Your task to perform on an android device: turn notification dots off Image 0: 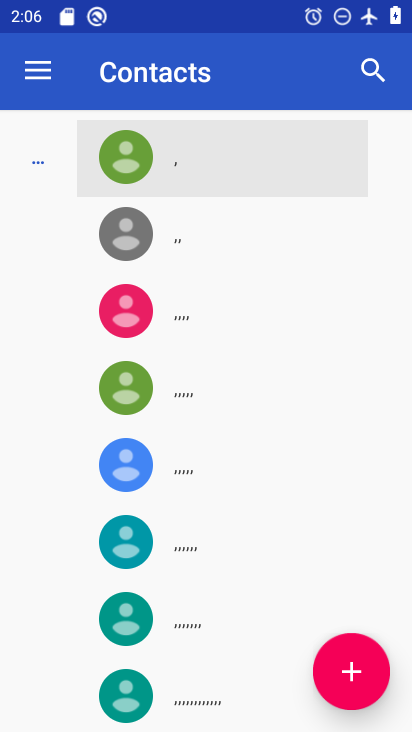
Step 0: click (362, 655)
Your task to perform on an android device: turn notification dots off Image 1: 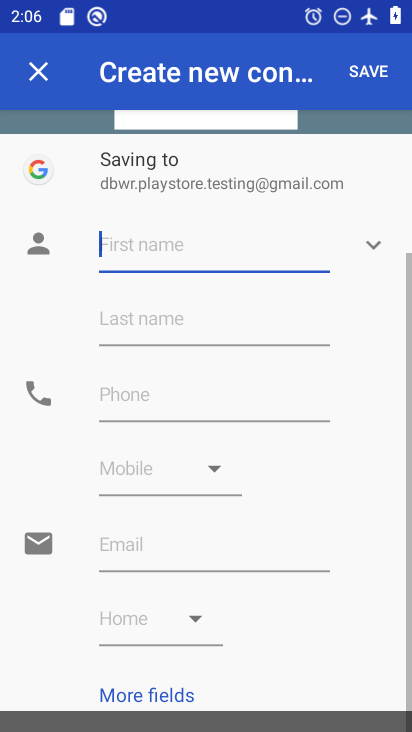
Step 1: press home button
Your task to perform on an android device: turn notification dots off Image 2: 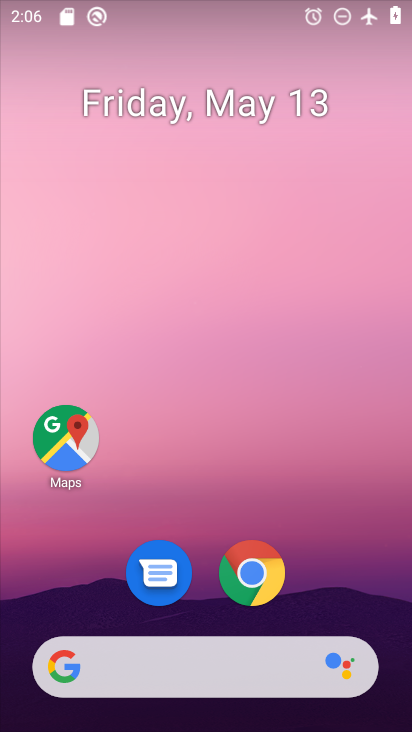
Step 2: drag from (206, 727) to (222, 186)
Your task to perform on an android device: turn notification dots off Image 3: 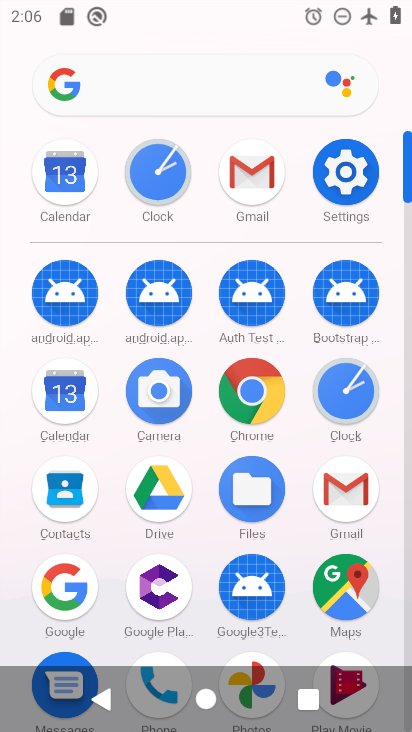
Step 3: click (341, 211)
Your task to perform on an android device: turn notification dots off Image 4: 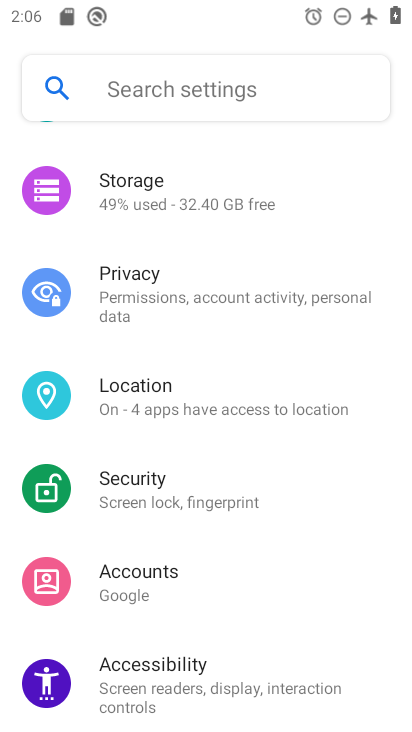
Step 4: drag from (211, 672) to (226, 264)
Your task to perform on an android device: turn notification dots off Image 5: 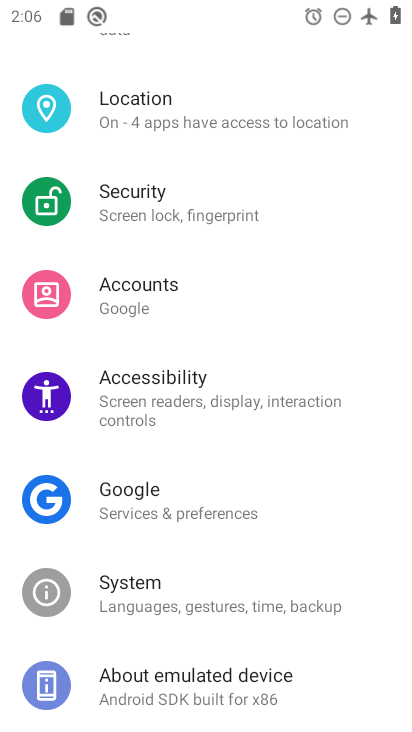
Step 5: drag from (258, 180) to (192, 720)
Your task to perform on an android device: turn notification dots off Image 6: 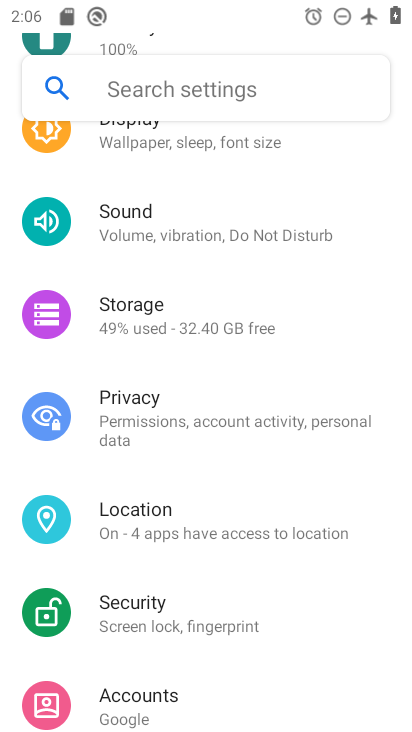
Step 6: drag from (287, 202) to (294, 706)
Your task to perform on an android device: turn notification dots off Image 7: 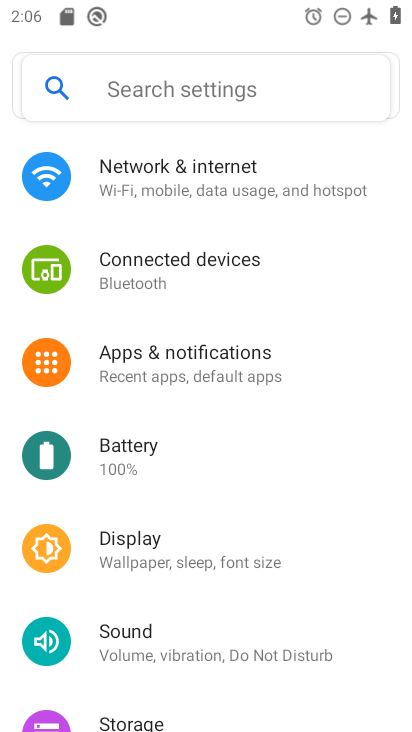
Step 7: click (216, 360)
Your task to perform on an android device: turn notification dots off Image 8: 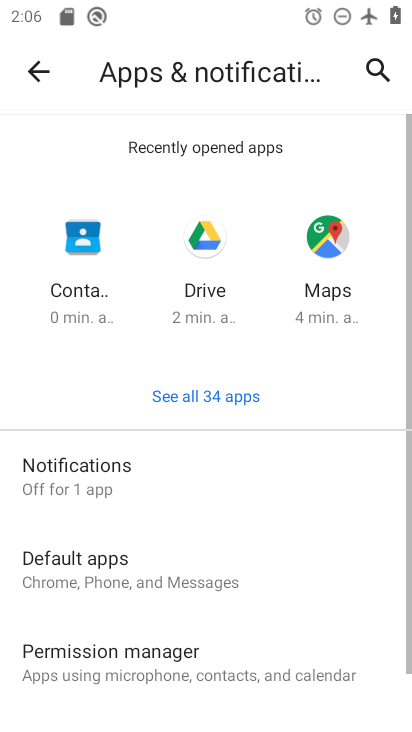
Step 8: click (197, 495)
Your task to perform on an android device: turn notification dots off Image 9: 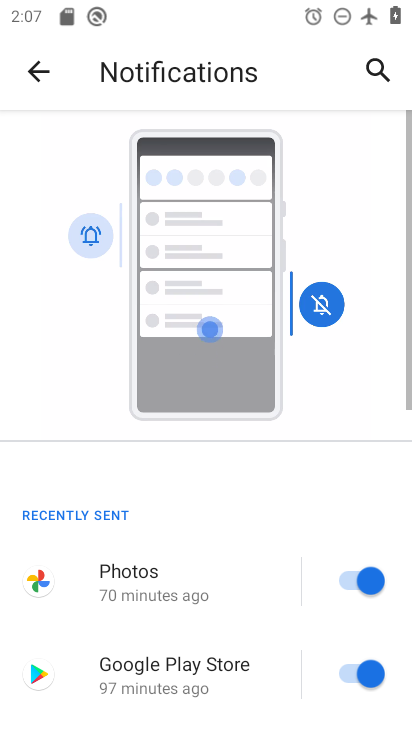
Step 9: drag from (272, 644) to (247, 32)
Your task to perform on an android device: turn notification dots off Image 10: 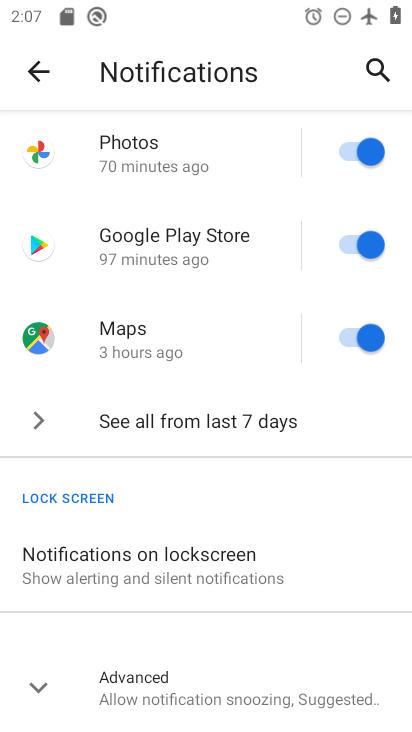
Step 10: click (296, 689)
Your task to perform on an android device: turn notification dots off Image 11: 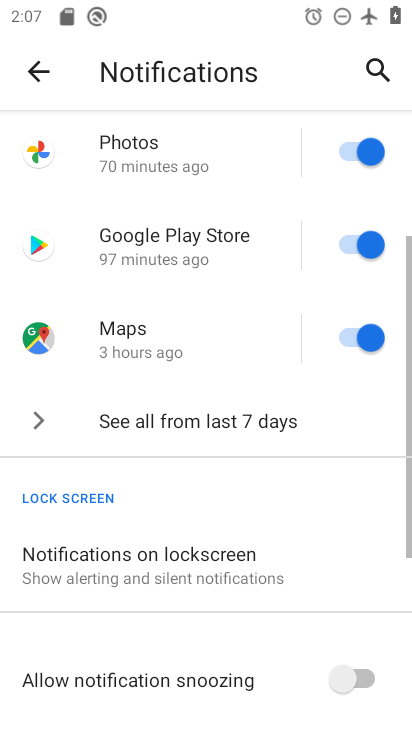
Step 11: drag from (291, 668) to (235, 300)
Your task to perform on an android device: turn notification dots off Image 12: 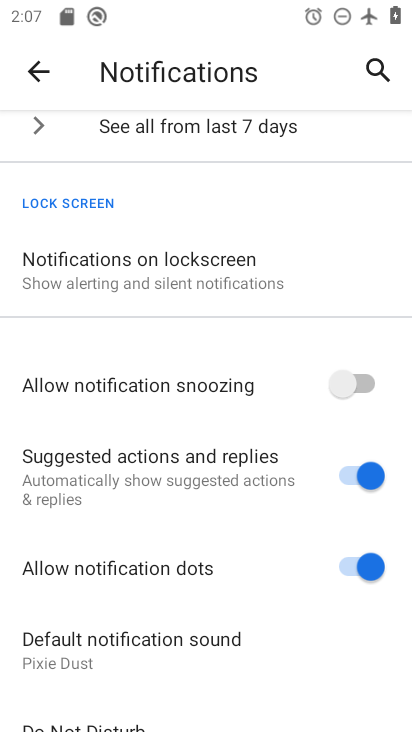
Step 12: click (361, 573)
Your task to perform on an android device: turn notification dots off Image 13: 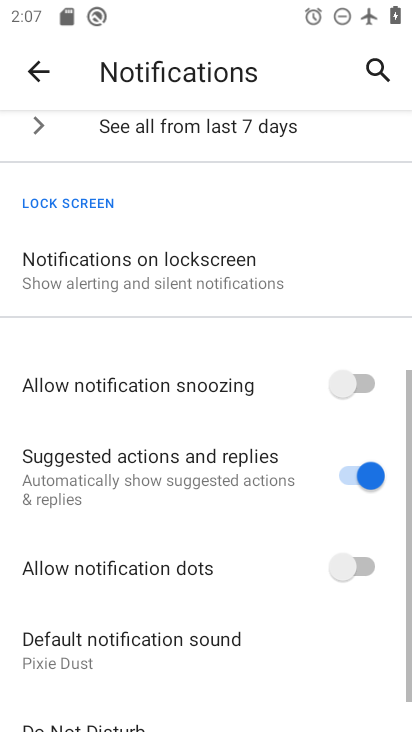
Step 13: task complete